Your task to perform on an android device: Search for Italian restaurants on Maps Image 0: 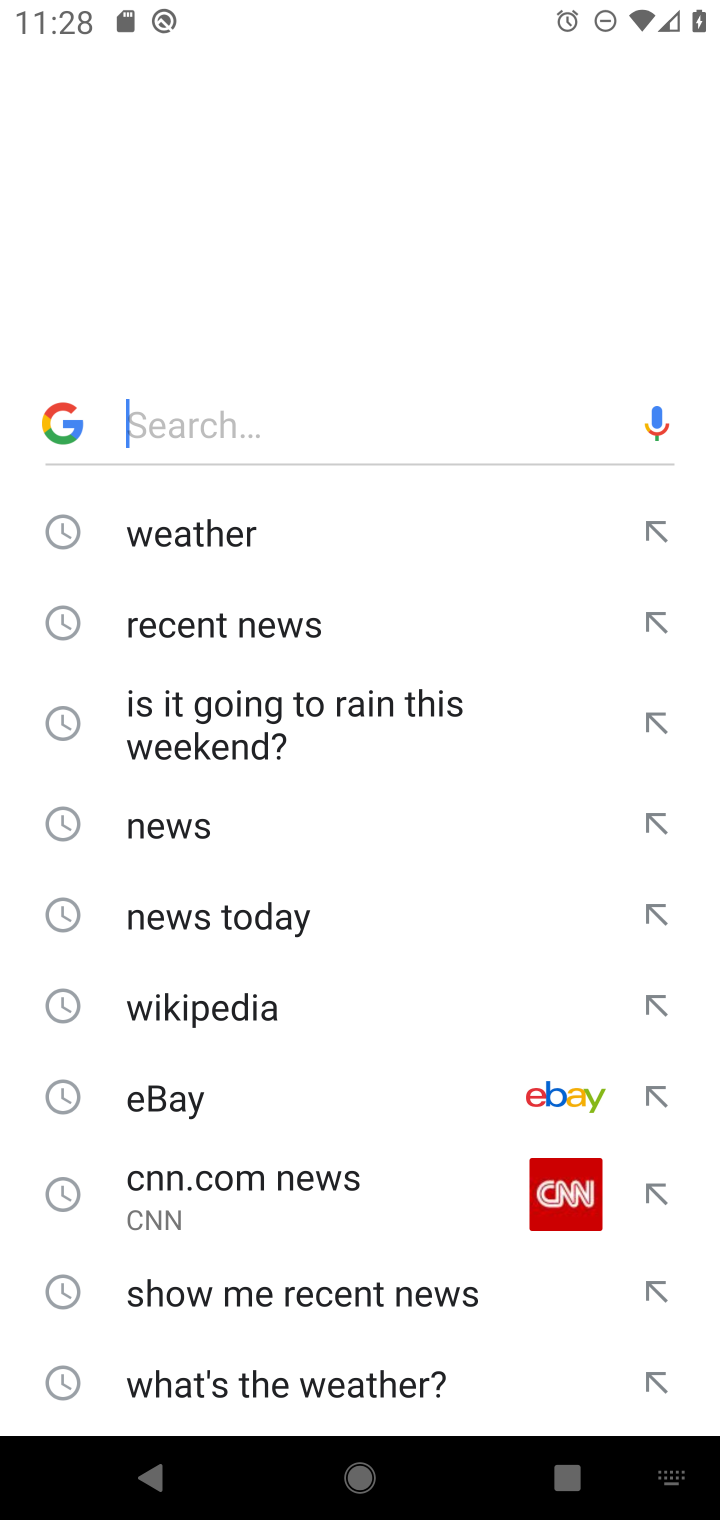
Step 0: press home button
Your task to perform on an android device: Search for Italian restaurants on Maps Image 1: 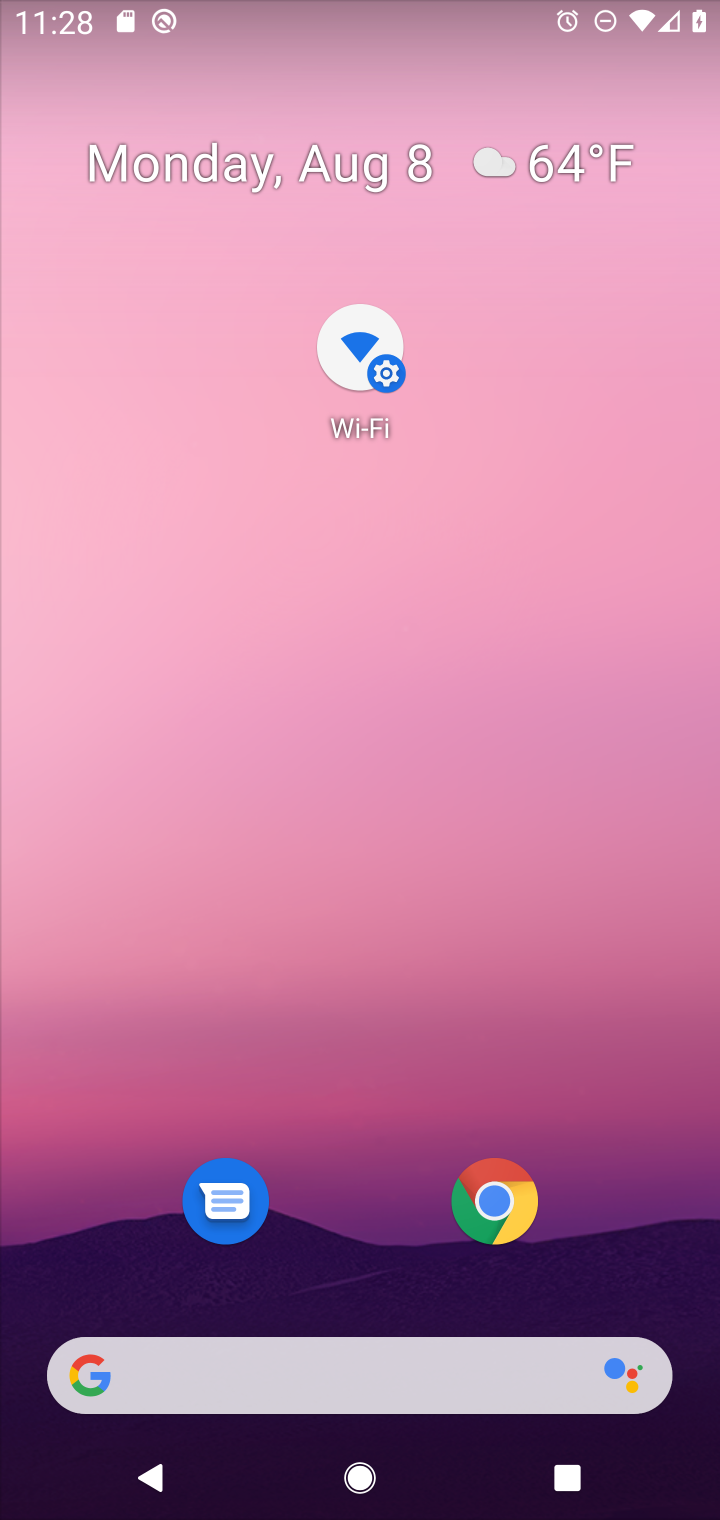
Step 1: drag from (330, 1229) to (528, 184)
Your task to perform on an android device: Search for Italian restaurants on Maps Image 2: 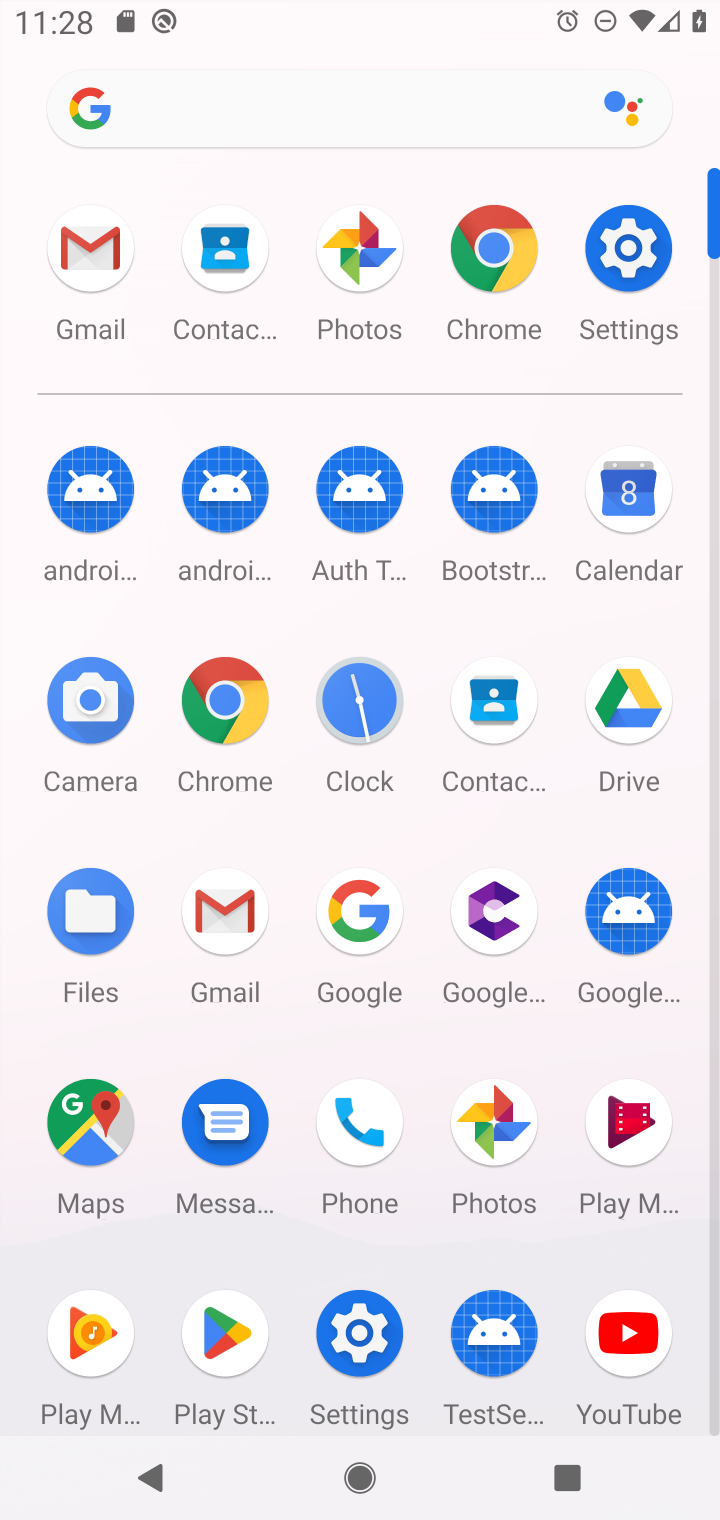
Step 2: click (66, 1137)
Your task to perform on an android device: Search for Italian restaurants on Maps Image 3: 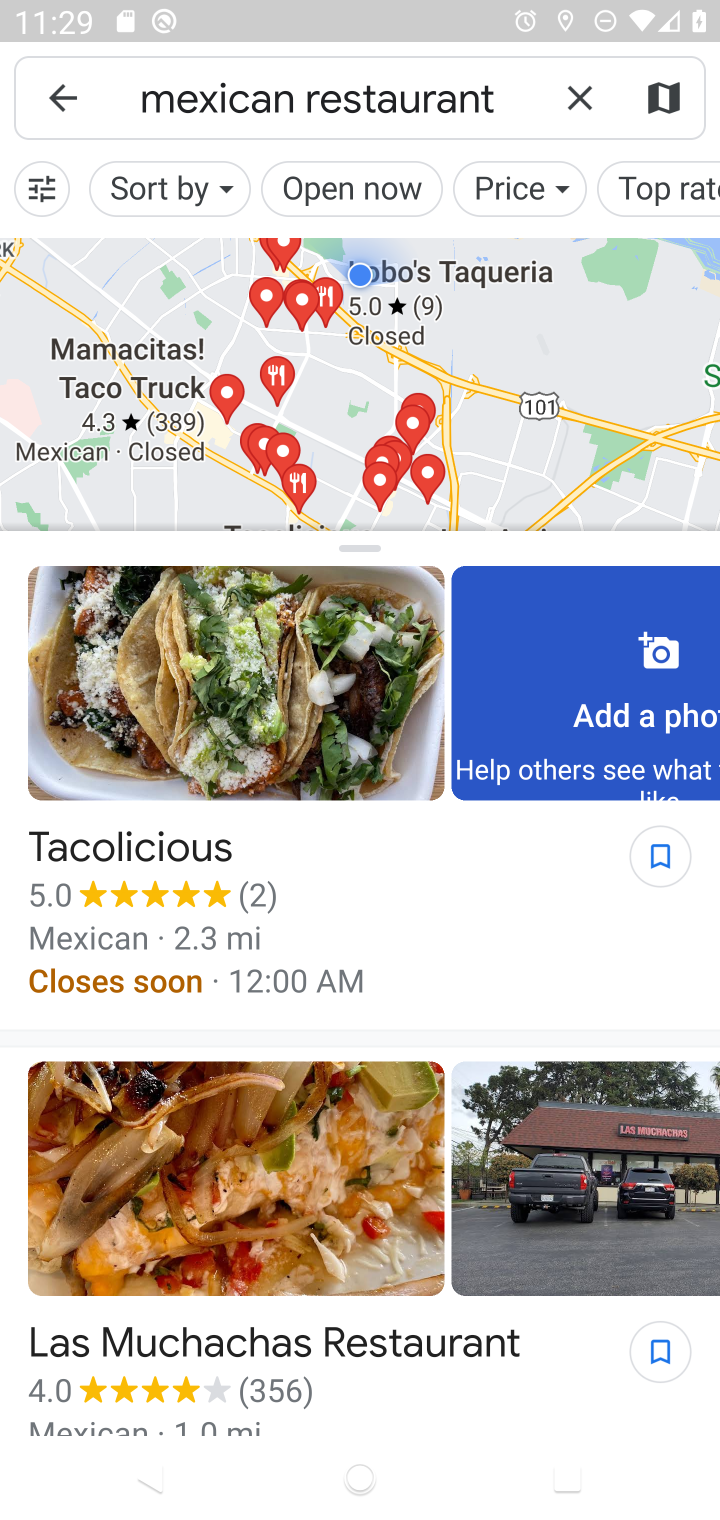
Step 3: press back button
Your task to perform on an android device: Search for Italian restaurants on Maps Image 4: 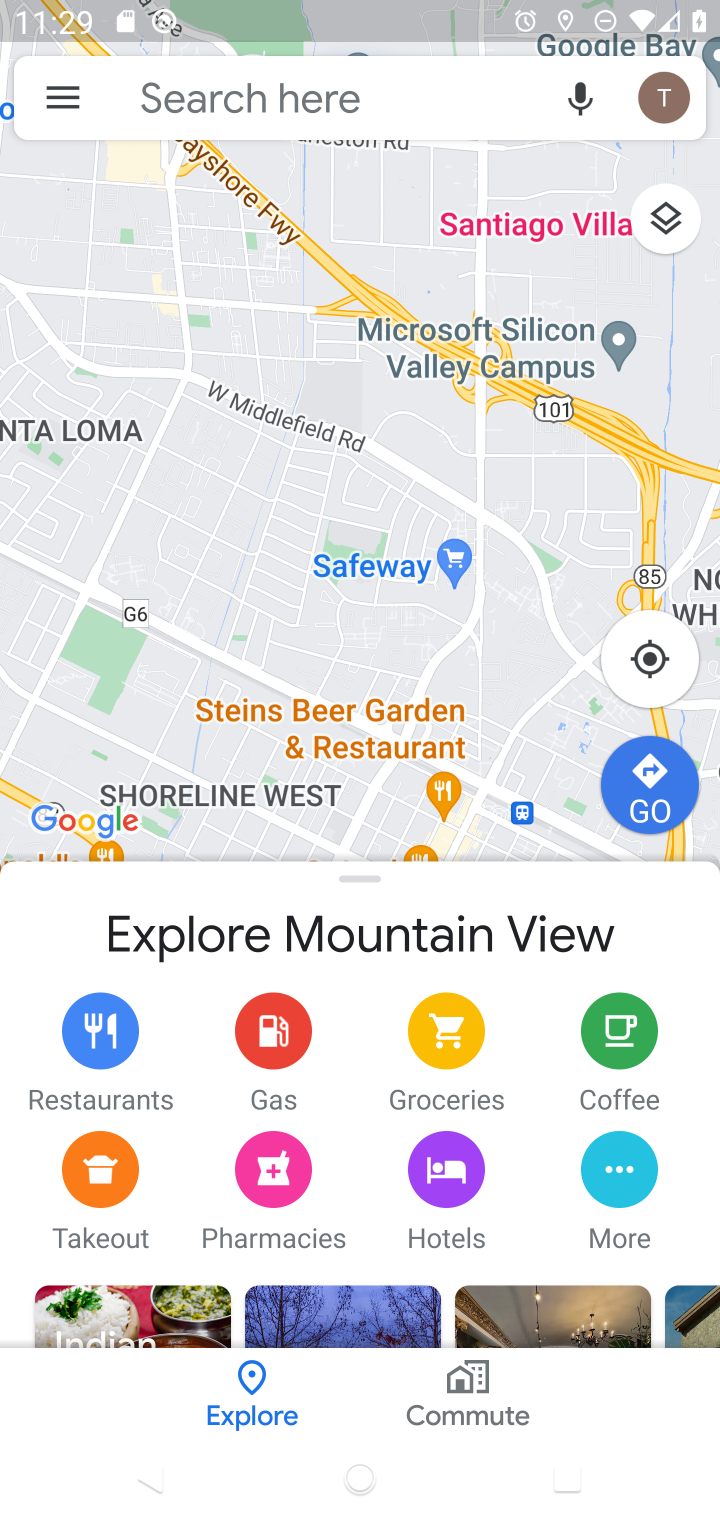
Step 4: click (450, 86)
Your task to perform on an android device: Search for Italian restaurants on Maps Image 5: 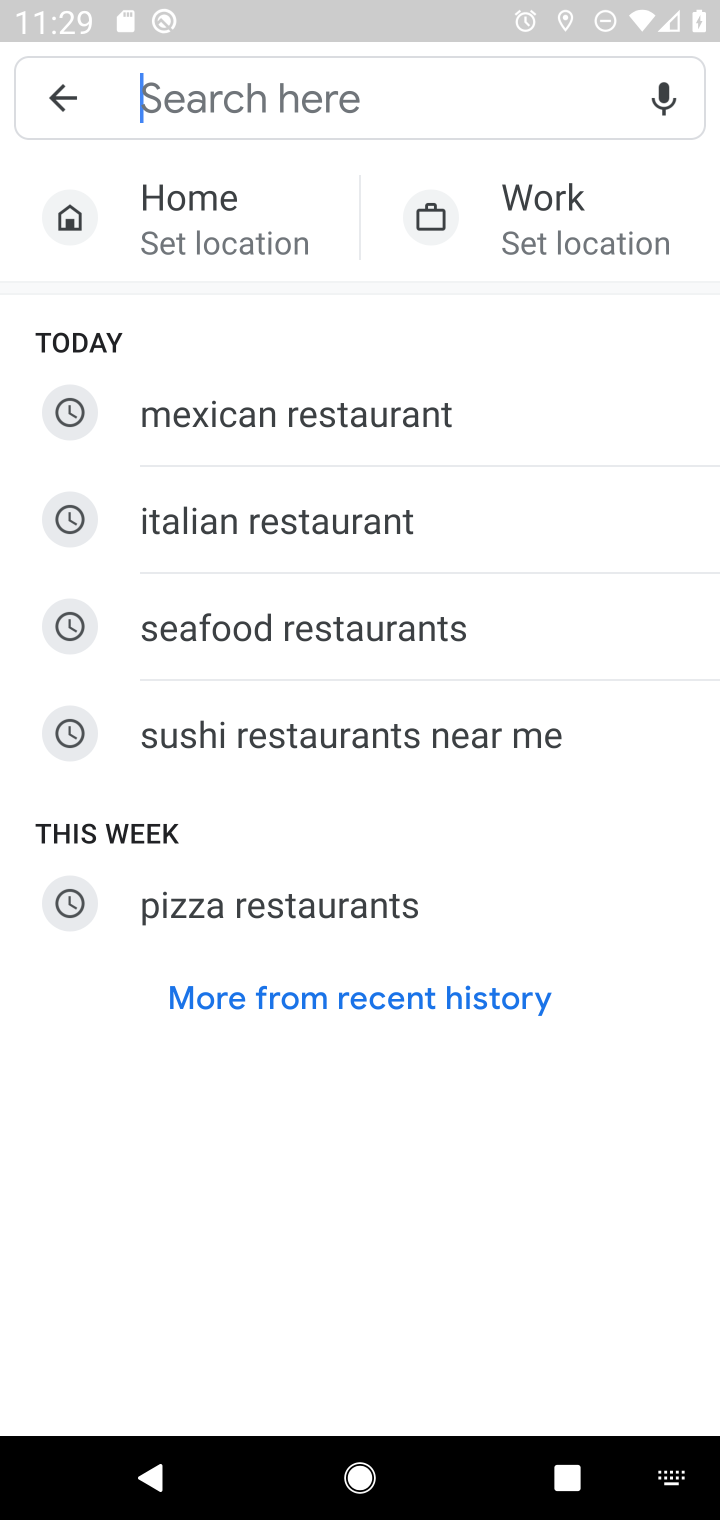
Step 5: type "italian restaurants"
Your task to perform on an android device: Search for Italian restaurants on Maps Image 6: 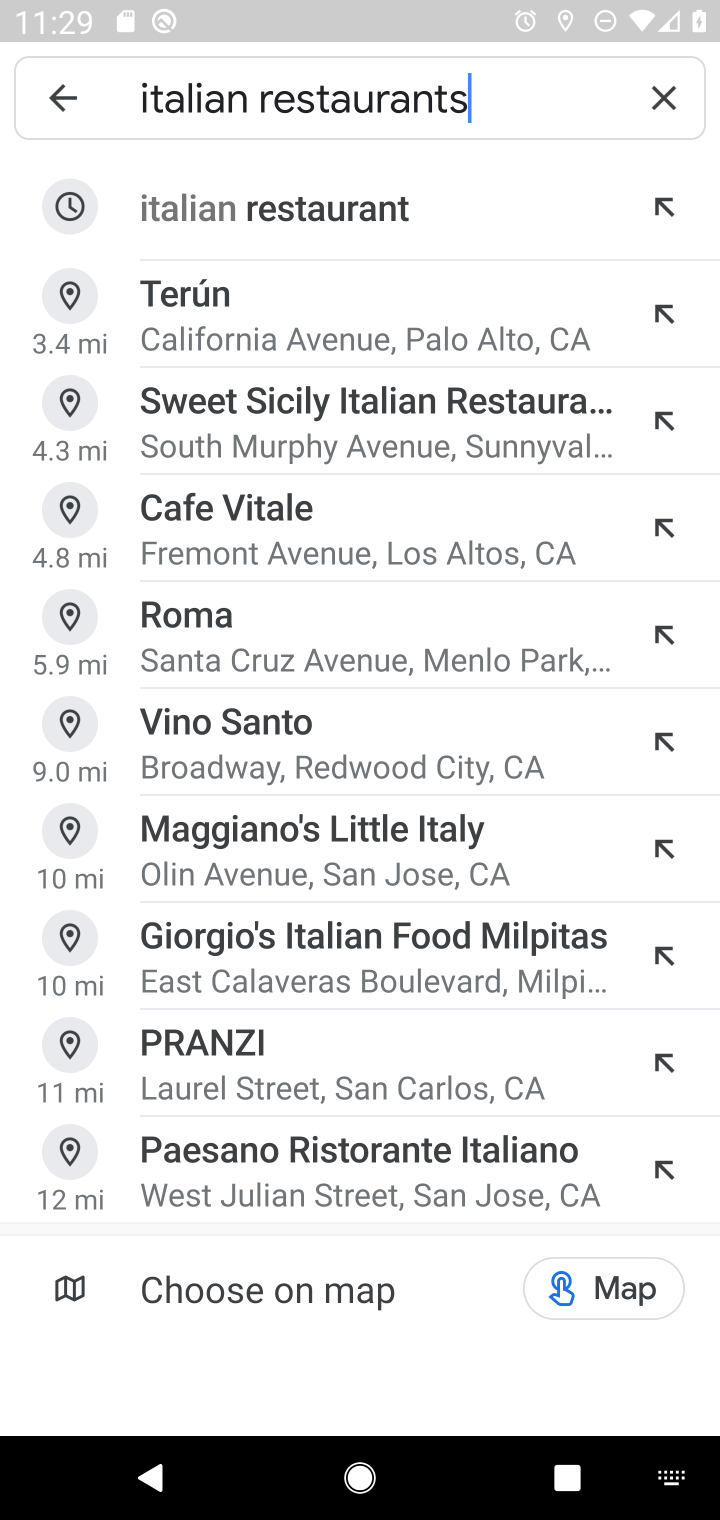
Step 6: task complete